Your task to perform on an android device: read, delete, or share a saved page in the chrome app Image 0: 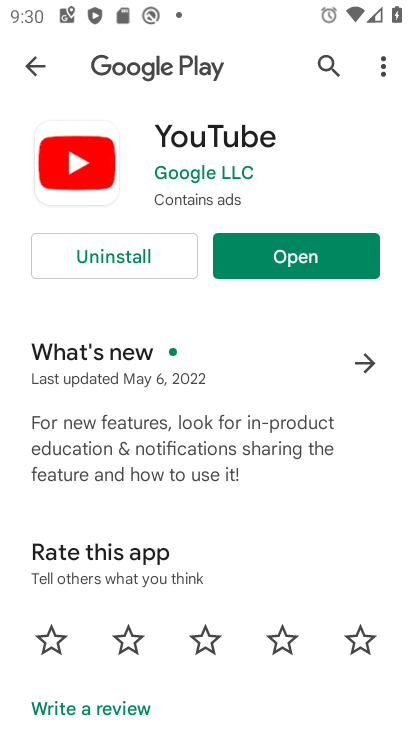
Step 0: press home button
Your task to perform on an android device: read, delete, or share a saved page in the chrome app Image 1: 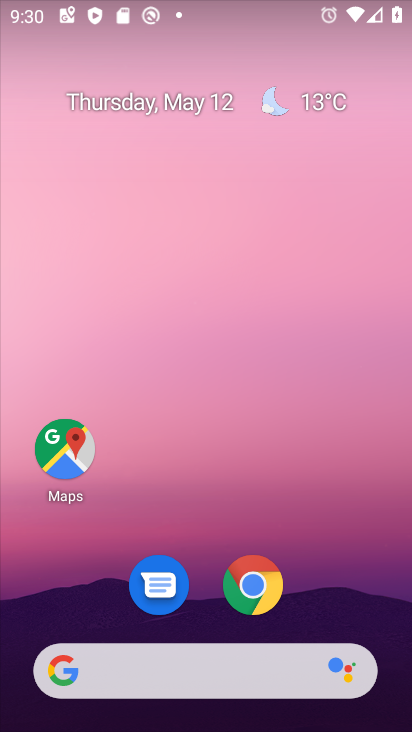
Step 1: click (263, 573)
Your task to perform on an android device: read, delete, or share a saved page in the chrome app Image 2: 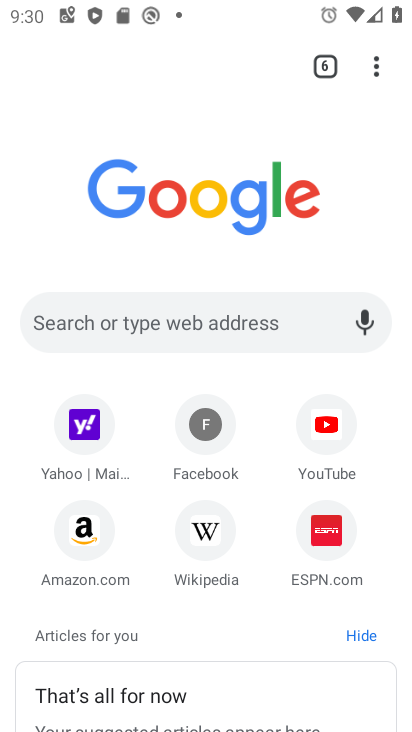
Step 2: click (379, 65)
Your task to perform on an android device: read, delete, or share a saved page in the chrome app Image 3: 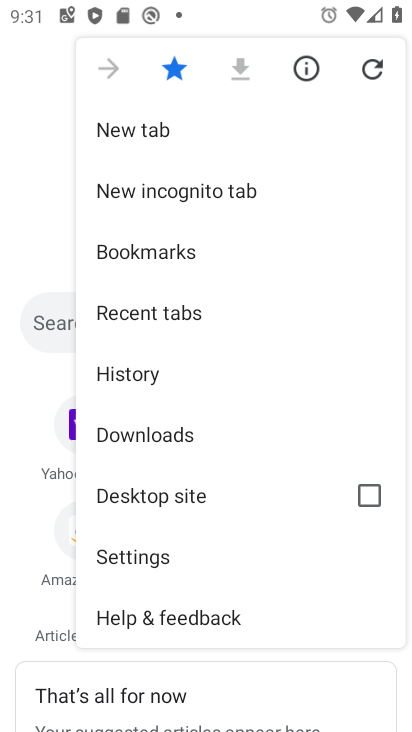
Step 3: click (175, 426)
Your task to perform on an android device: read, delete, or share a saved page in the chrome app Image 4: 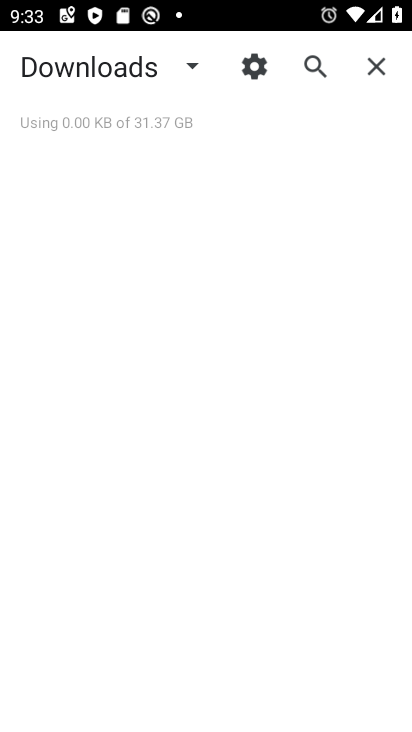
Step 4: task complete